Your task to perform on an android device: clear all cookies in the chrome app Image 0: 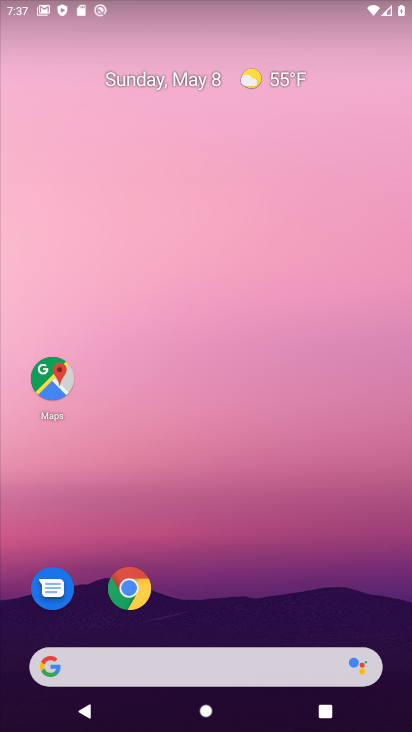
Step 0: drag from (346, 612) to (253, 61)
Your task to perform on an android device: clear all cookies in the chrome app Image 1: 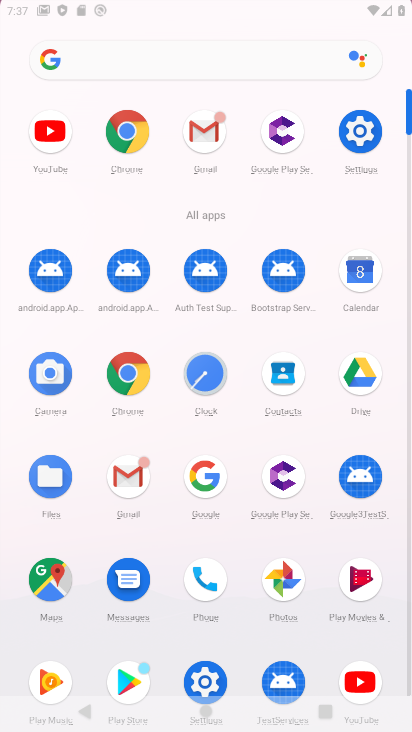
Step 1: drag from (299, 602) to (253, 67)
Your task to perform on an android device: clear all cookies in the chrome app Image 2: 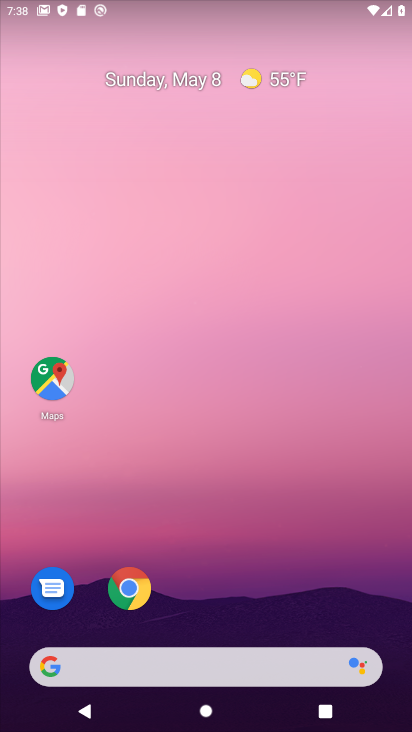
Step 2: drag from (279, 620) to (262, 87)
Your task to perform on an android device: clear all cookies in the chrome app Image 3: 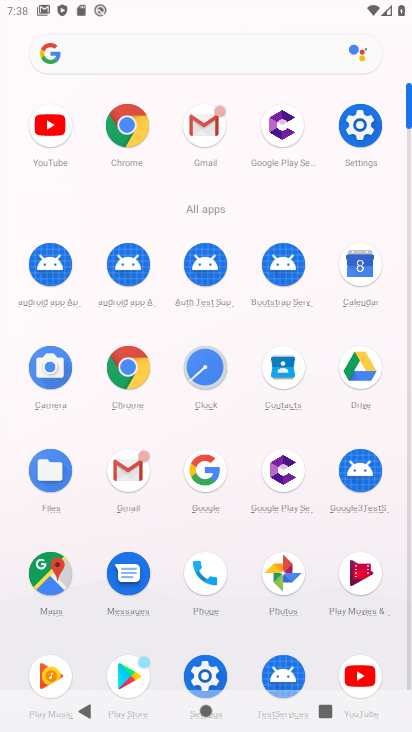
Step 3: click (126, 377)
Your task to perform on an android device: clear all cookies in the chrome app Image 4: 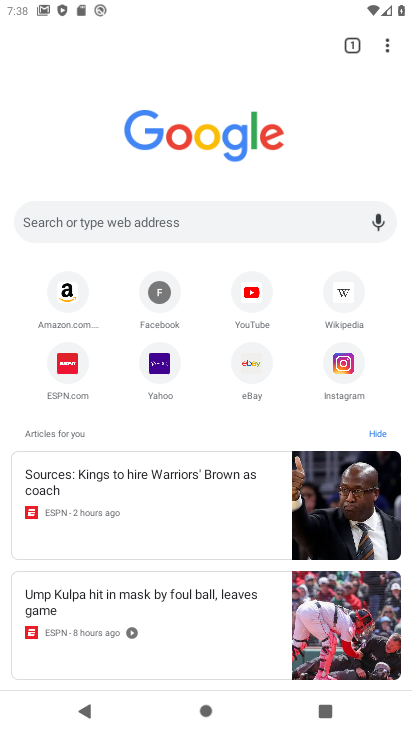
Step 4: click (380, 40)
Your task to perform on an android device: clear all cookies in the chrome app Image 5: 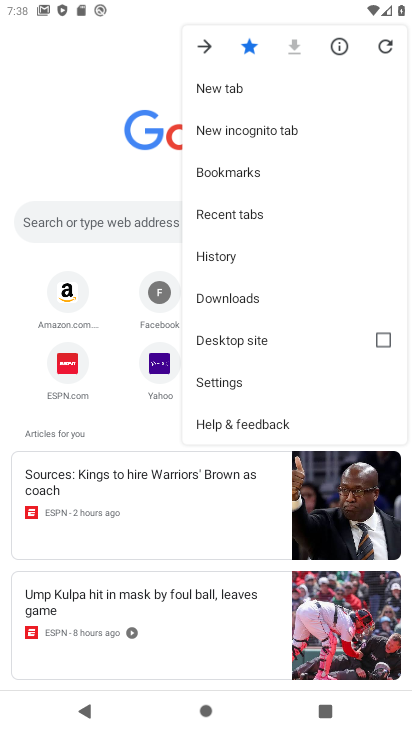
Step 5: click (228, 260)
Your task to perform on an android device: clear all cookies in the chrome app Image 6: 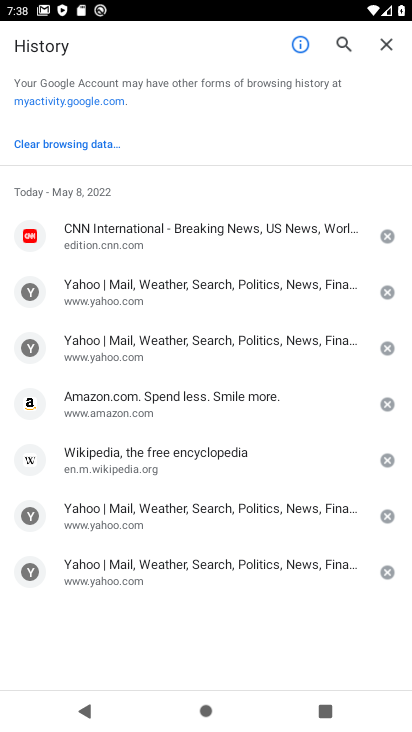
Step 6: click (95, 143)
Your task to perform on an android device: clear all cookies in the chrome app Image 7: 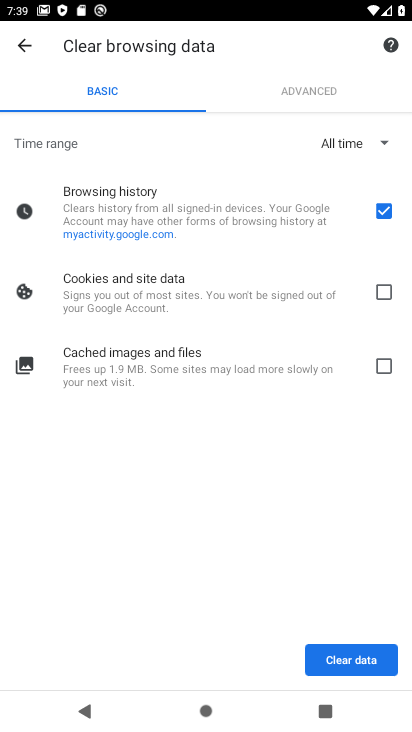
Step 7: click (317, 305)
Your task to perform on an android device: clear all cookies in the chrome app Image 8: 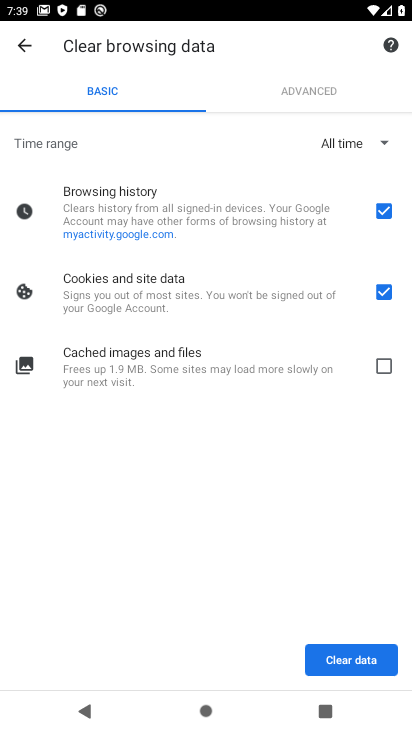
Step 8: click (323, 668)
Your task to perform on an android device: clear all cookies in the chrome app Image 9: 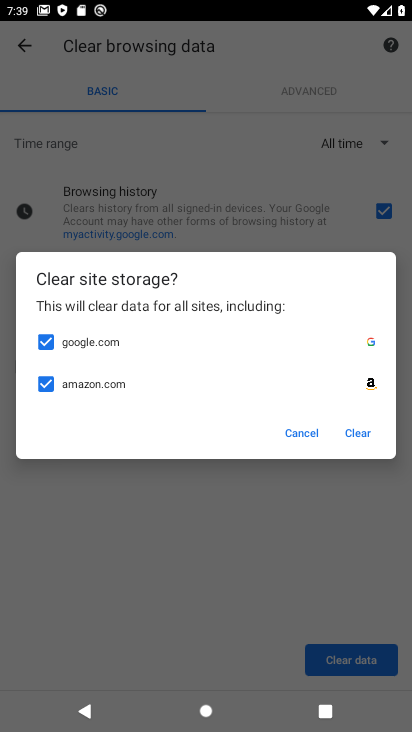
Step 9: click (363, 435)
Your task to perform on an android device: clear all cookies in the chrome app Image 10: 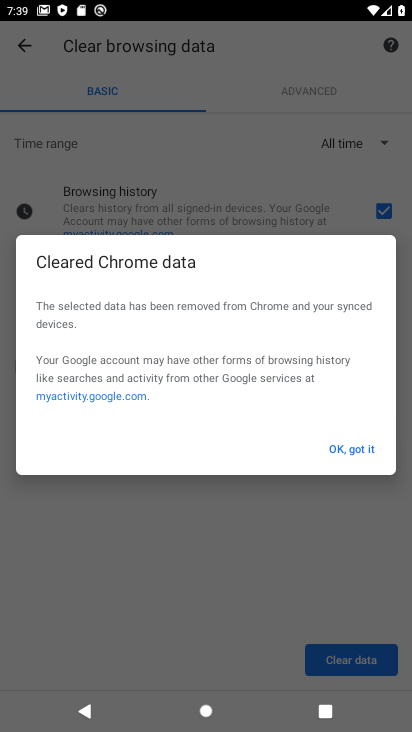
Step 10: click (342, 449)
Your task to perform on an android device: clear all cookies in the chrome app Image 11: 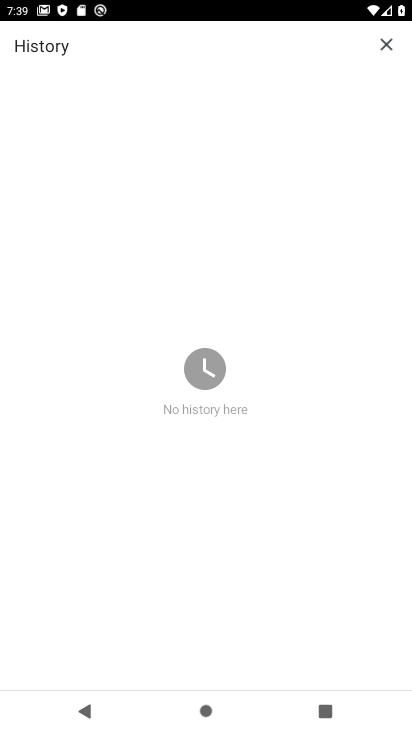
Step 11: task complete